Your task to perform on an android device: Go to ESPN.com Image 0: 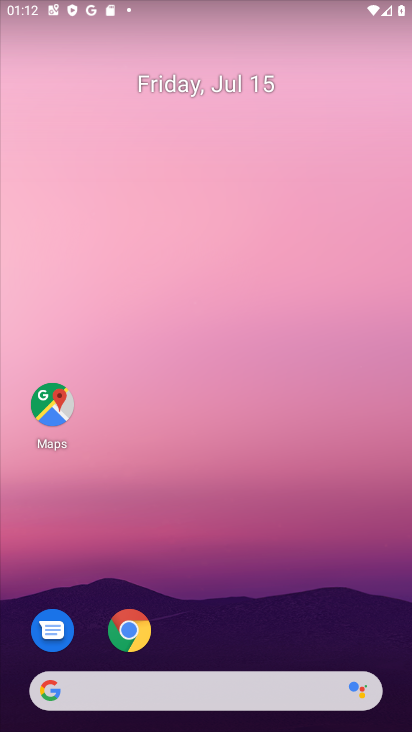
Step 0: click (127, 631)
Your task to perform on an android device: Go to ESPN.com Image 1: 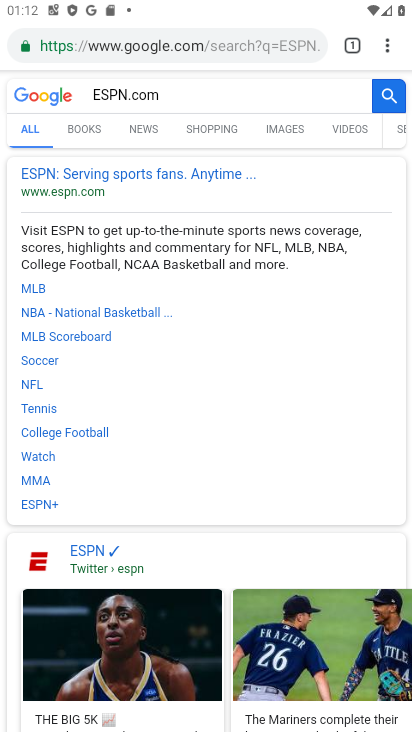
Step 1: task complete